Your task to perform on an android device: Find coffee shops on Maps Image 0: 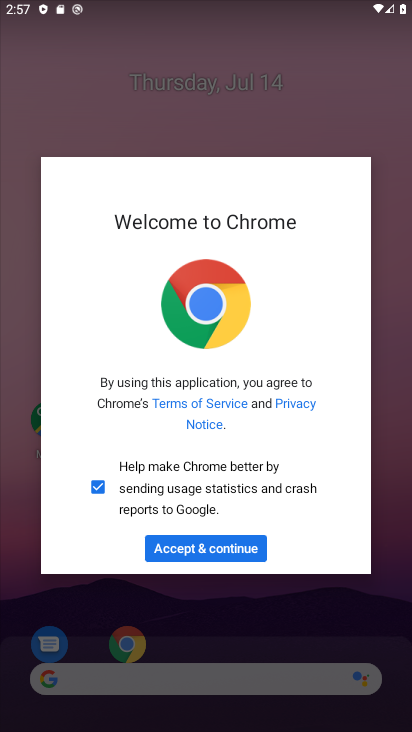
Step 0: press home button
Your task to perform on an android device: Find coffee shops on Maps Image 1: 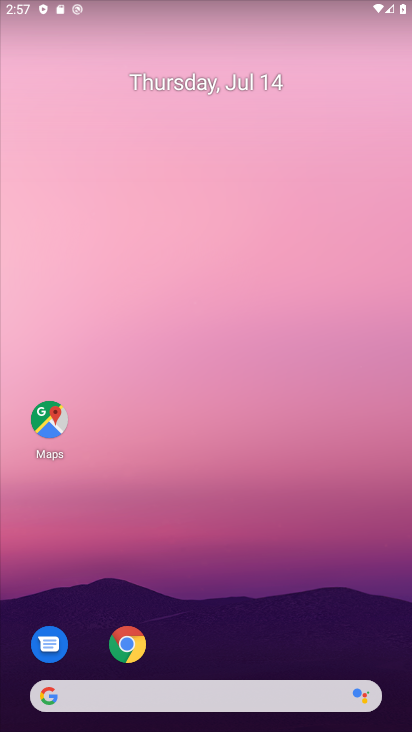
Step 1: drag from (200, 671) to (210, 192)
Your task to perform on an android device: Find coffee shops on Maps Image 2: 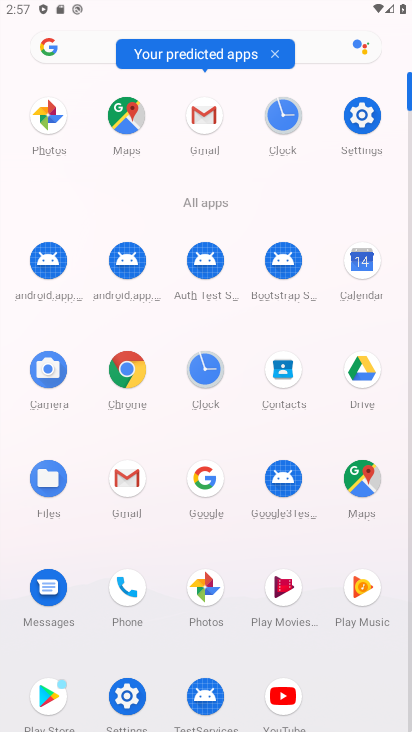
Step 2: click (363, 473)
Your task to perform on an android device: Find coffee shops on Maps Image 3: 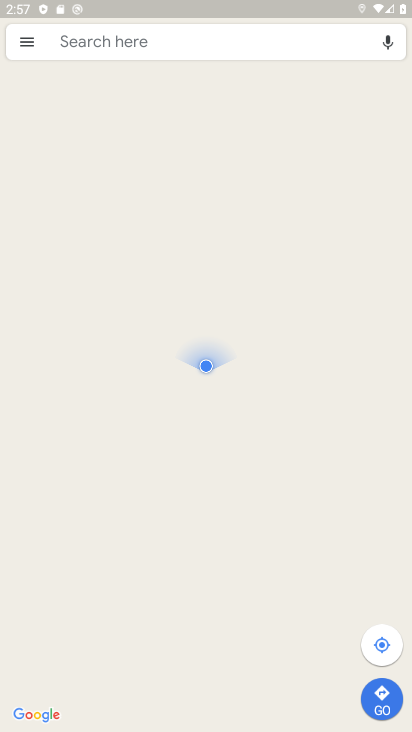
Step 3: click (166, 29)
Your task to perform on an android device: Find coffee shops on Maps Image 4: 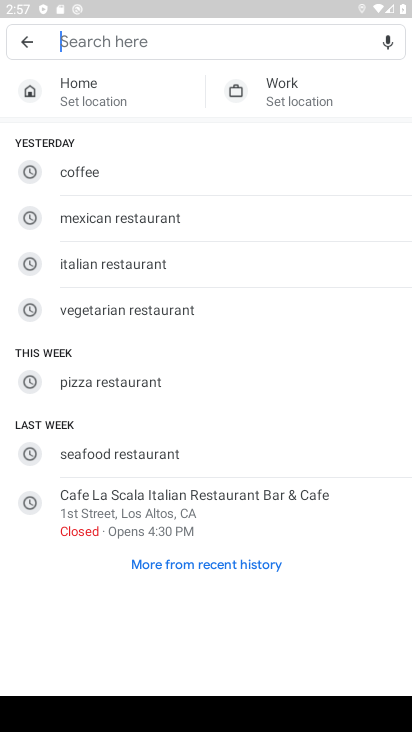
Step 4: type "Coffee shops"
Your task to perform on an android device: Find coffee shops on Maps Image 5: 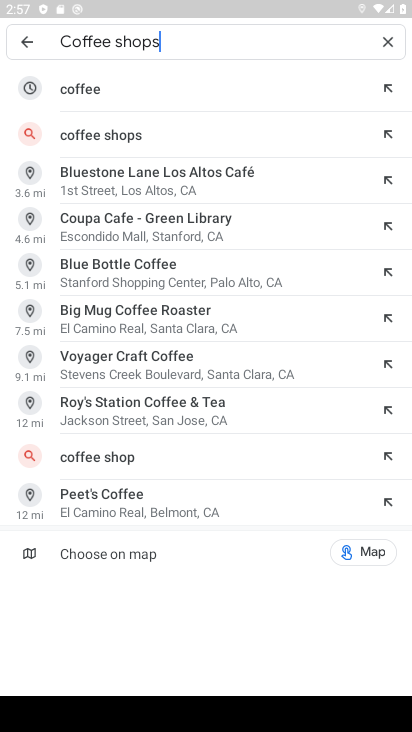
Step 5: click (77, 132)
Your task to perform on an android device: Find coffee shops on Maps Image 6: 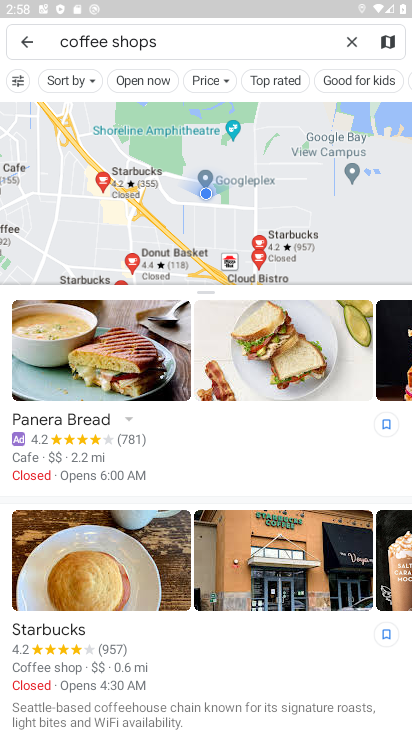
Step 6: task complete